Your task to perform on an android device: allow cookies in the chrome app Image 0: 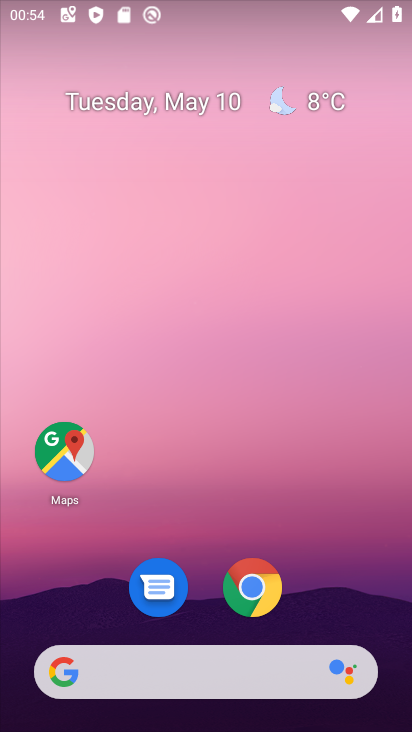
Step 0: click (247, 594)
Your task to perform on an android device: allow cookies in the chrome app Image 1: 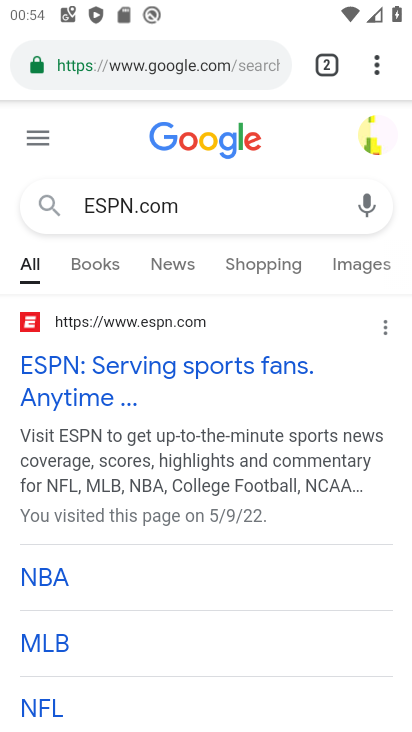
Step 1: click (369, 62)
Your task to perform on an android device: allow cookies in the chrome app Image 2: 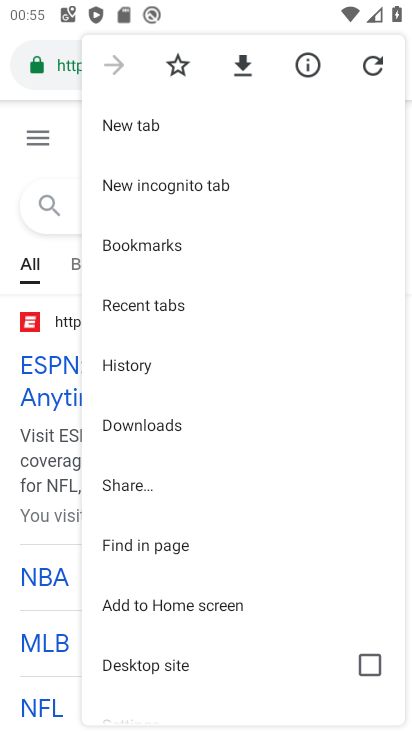
Step 2: click (116, 358)
Your task to perform on an android device: allow cookies in the chrome app Image 3: 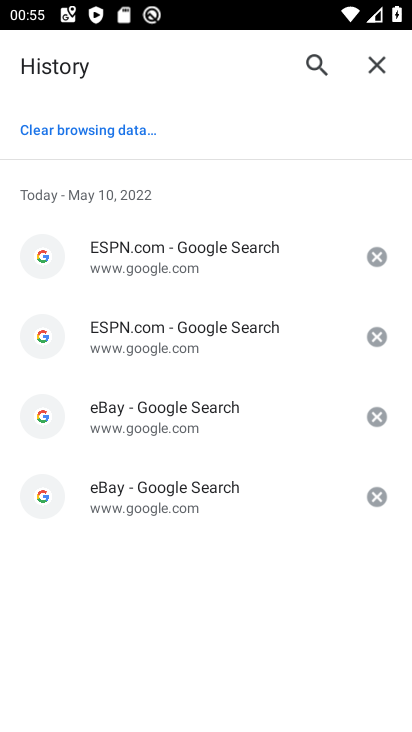
Step 3: click (98, 131)
Your task to perform on an android device: allow cookies in the chrome app Image 4: 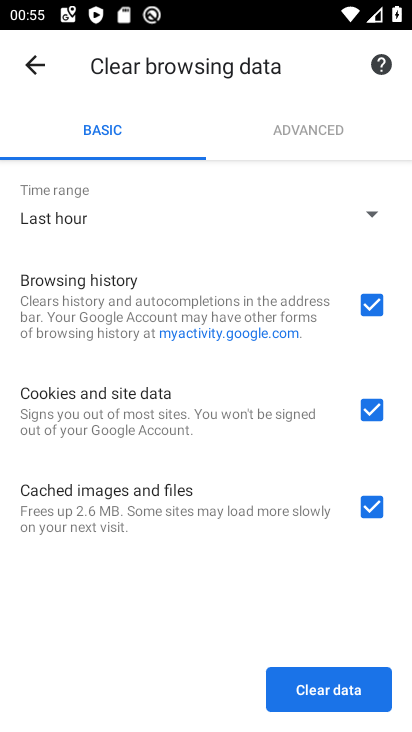
Step 4: click (27, 64)
Your task to perform on an android device: allow cookies in the chrome app Image 5: 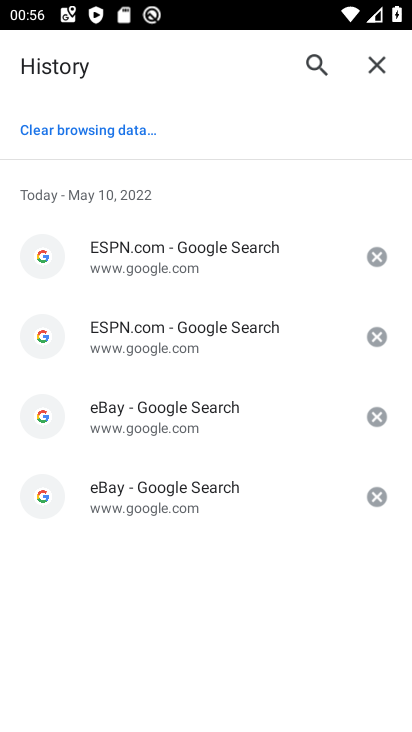
Step 5: press back button
Your task to perform on an android device: allow cookies in the chrome app Image 6: 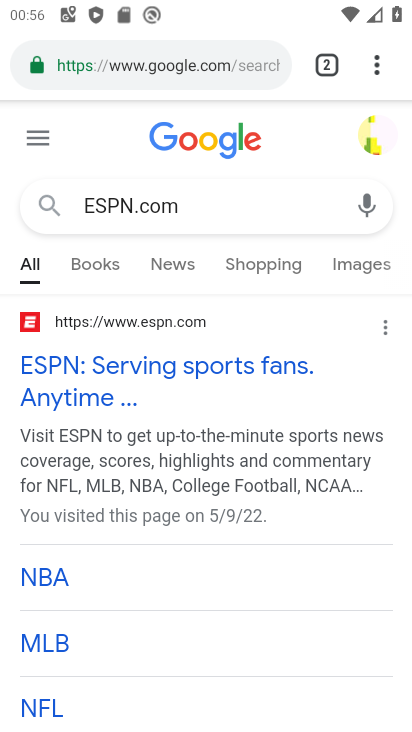
Step 6: click (374, 62)
Your task to perform on an android device: allow cookies in the chrome app Image 7: 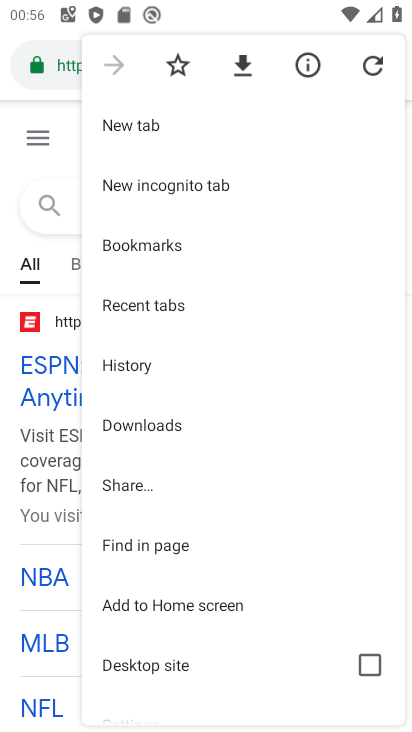
Step 7: drag from (309, 647) to (294, 281)
Your task to perform on an android device: allow cookies in the chrome app Image 8: 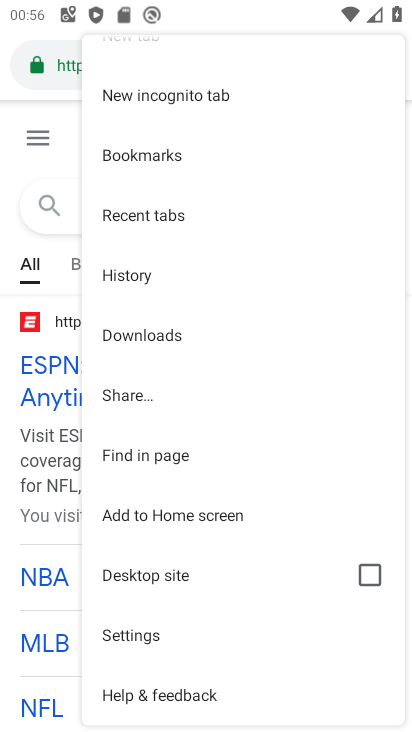
Step 8: click (136, 635)
Your task to perform on an android device: allow cookies in the chrome app Image 9: 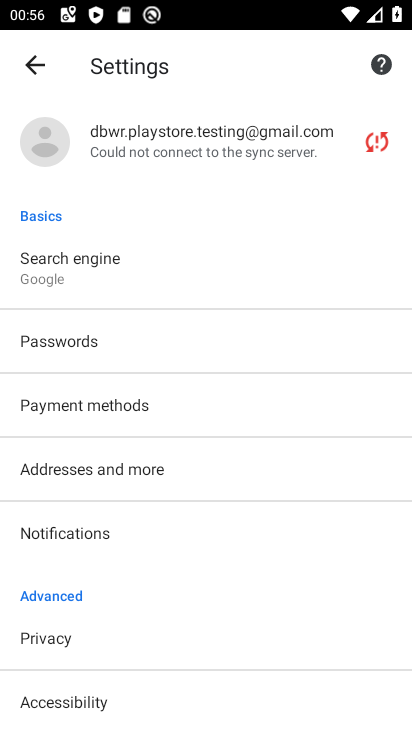
Step 9: drag from (289, 671) to (270, 372)
Your task to perform on an android device: allow cookies in the chrome app Image 10: 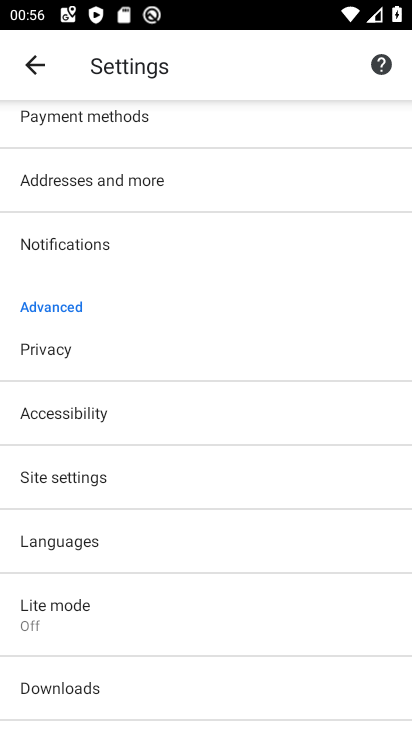
Step 10: click (61, 472)
Your task to perform on an android device: allow cookies in the chrome app Image 11: 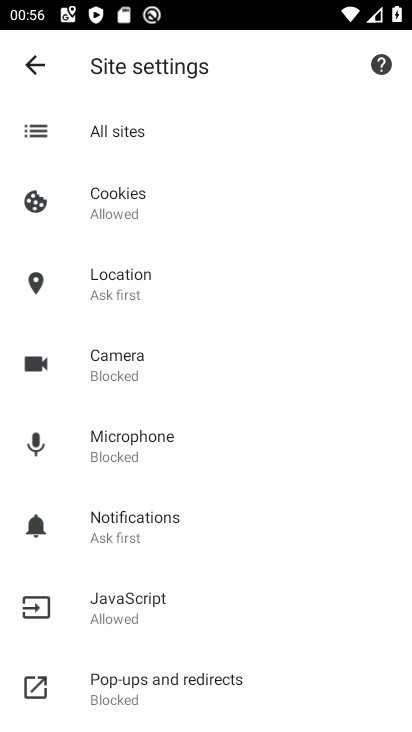
Step 11: click (106, 218)
Your task to perform on an android device: allow cookies in the chrome app Image 12: 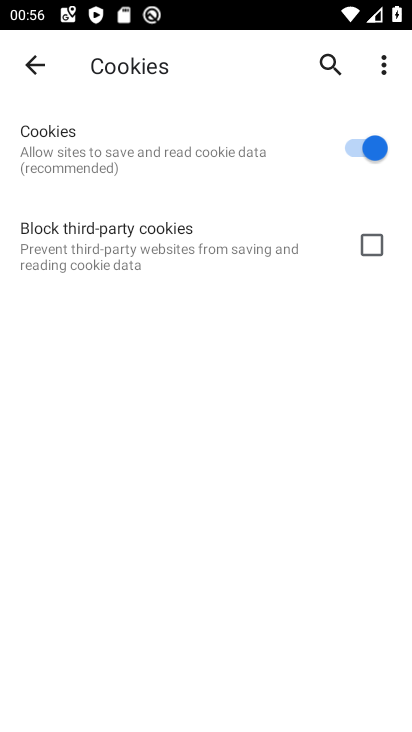
Step 12: task complete